Your task to perform on an android device: Open location settings Image 0: 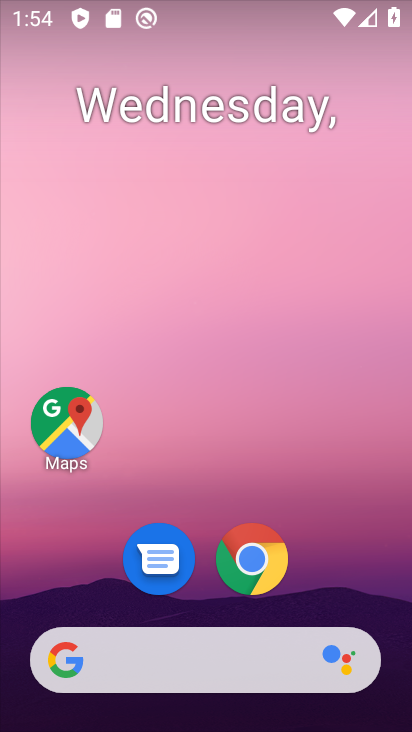
Step 0: press home button
Your task to perform on an android device: Open location settings Image 1: 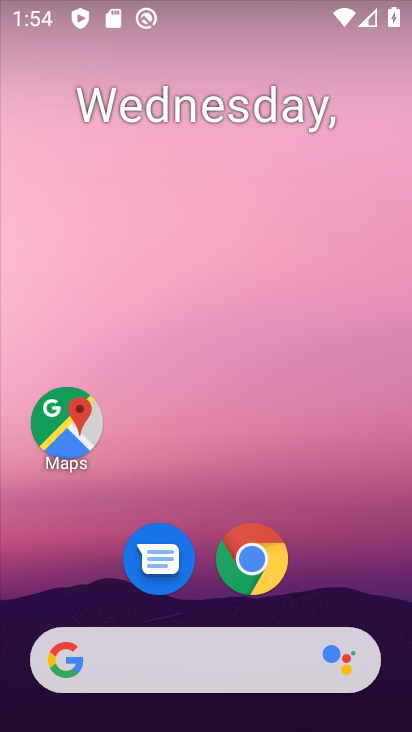
Step 1: drag from (366, 566) to (359, 16)
Your task to perform on an android device: Open location settings Image 2: 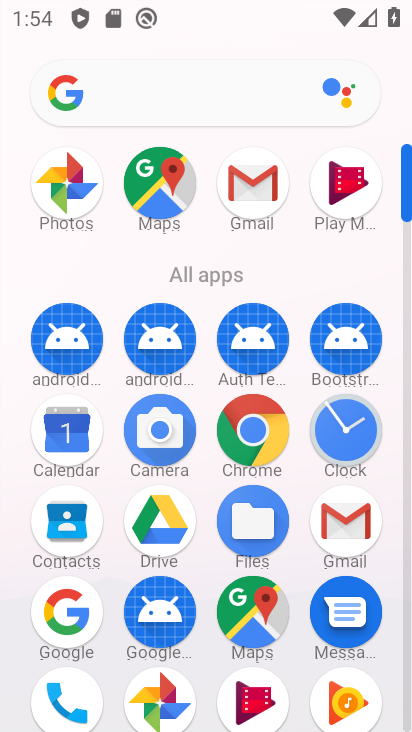
Step 2: click (406, 704)
Your task to perform on an android device: Open location settings Image 3: 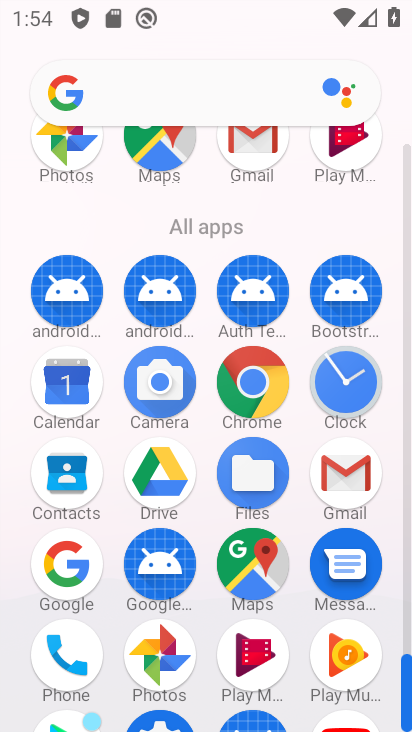
Step 3: click (405, 710)
Your task to perform on an android device: Open location settings Image 4: 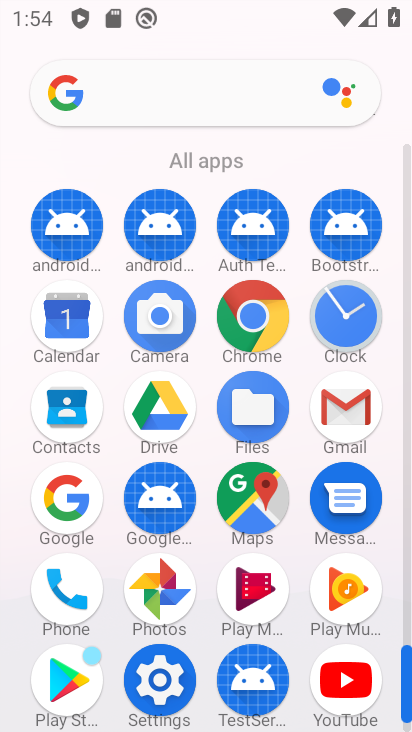
Step 4: click (124, 686)
Your task to perform on an android device: Open location settings Image 5: 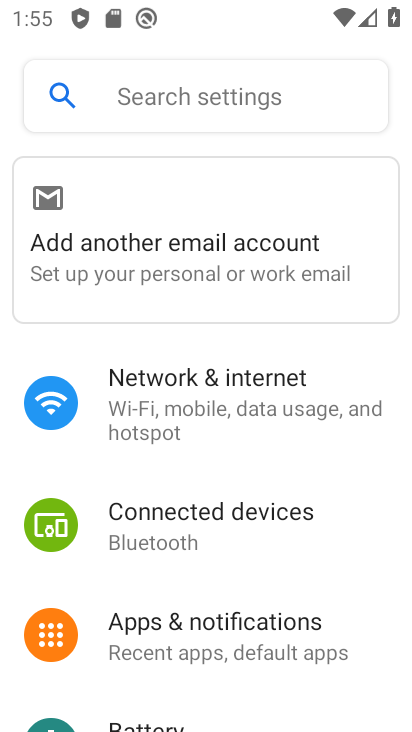
Step 5: drag from (179, 598) to (185, 261)
Your task to perform on an android device: Open location settings Image 6: 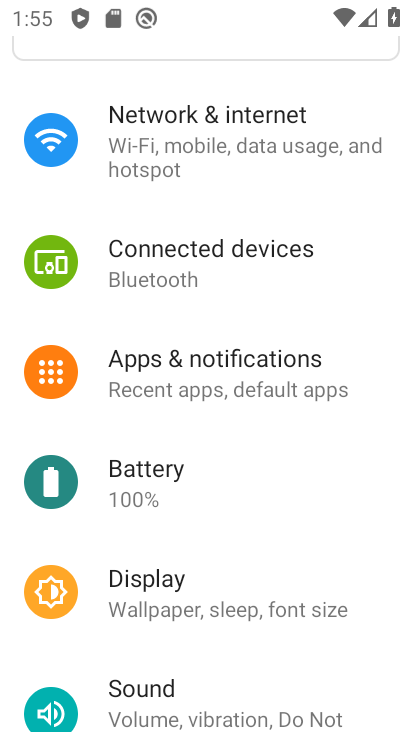
Step 6: drag from (264, 612) to (257, 222)
Your task to perform on an android device: Open location settings Image 7: 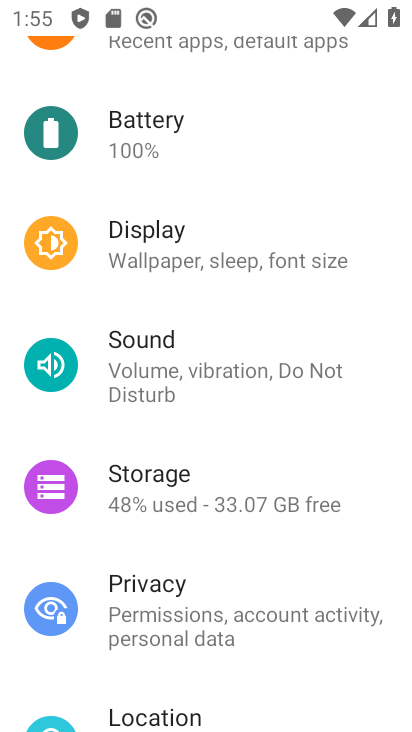
Step 7: drag from (298, 649) to (264, 322)
Your task to perform on an android device: Open location settings Image 8: 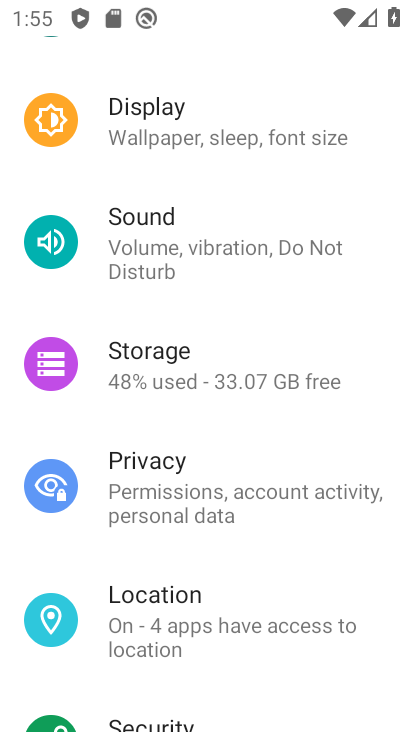
Step 8: click (213, 599)
Your task to perform on an android device: Open location settings Image 9: 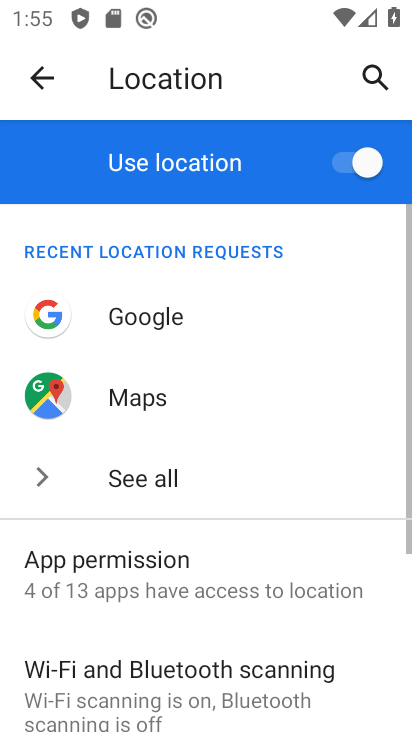
Step 9: task complete